Your task to perform on an android device: toggle airplane mode Image 0: 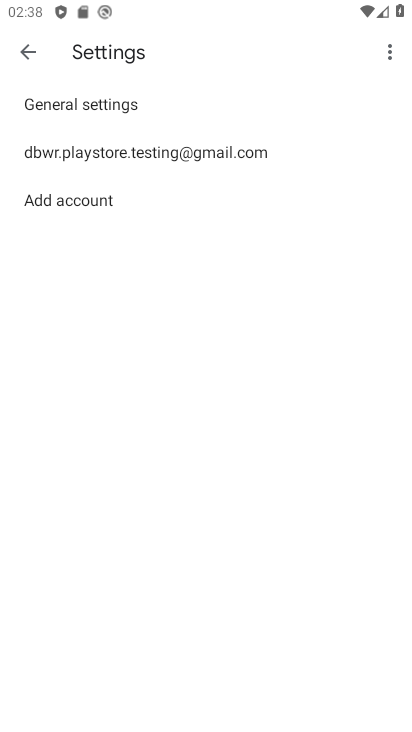
Step 0: press home button
Your task to perform on an android device: toggle airplane mode Image 1: 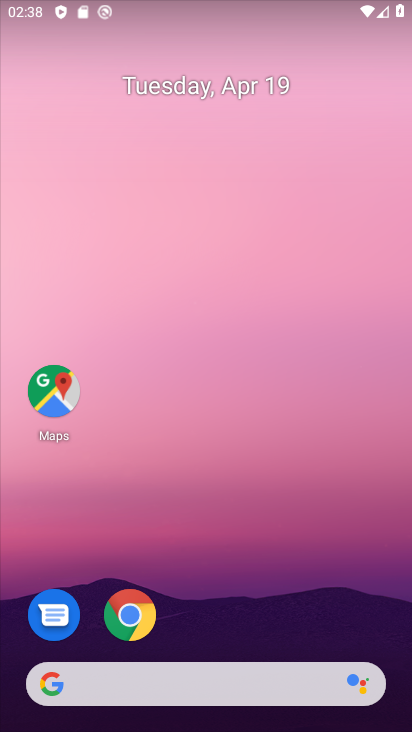
Step 1: drag from (235, 609) to (272, 230)
Your task to perform on an android device: toggle airplane mode Image 2: 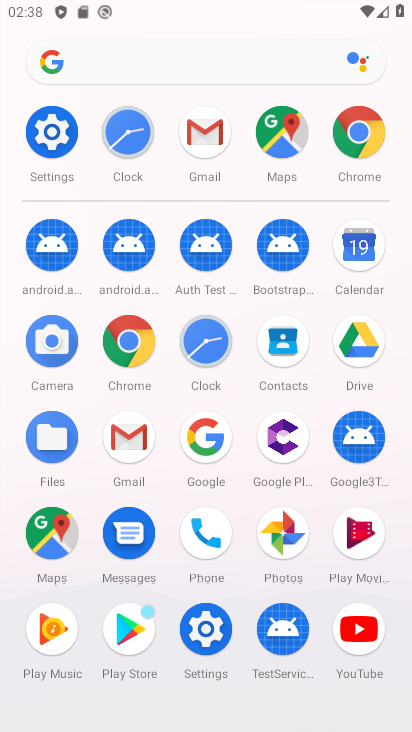
Step 2: click (53, 124)
Your task to perform on an android device: toggle airplane mode Image 3: 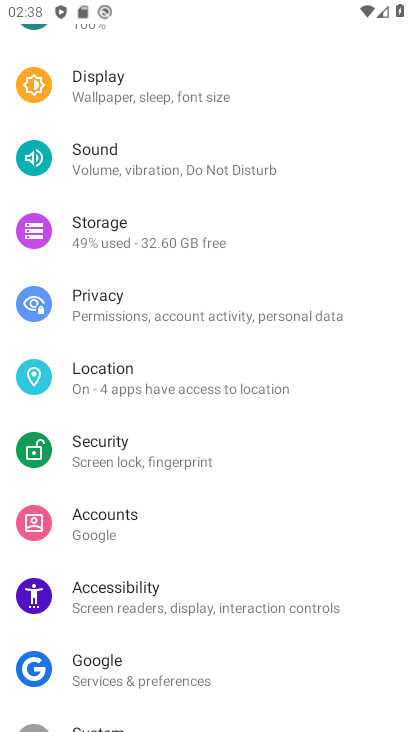
Step 3: drag from (189, 94) to (154, 592)
Your task to perform on an android device: toggle airplane mode Image 4: 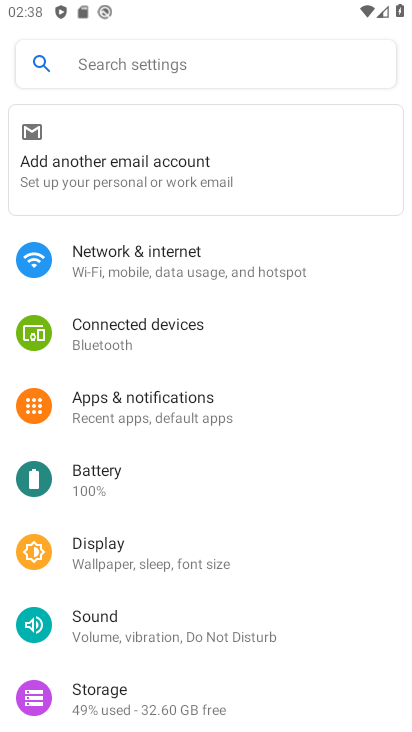
Step 4: click (163, 249)
Your task to perform on an android device: toggle airplane mode Image 5: 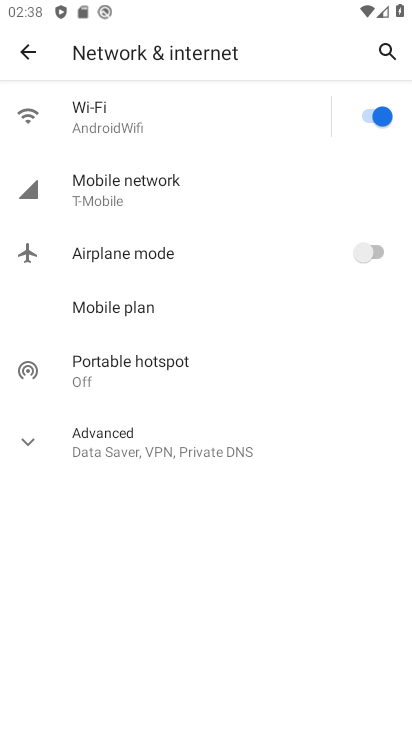
Step 5: click (367, 244)
Your task to perform on an android device: toggle airplane mode Image 6: 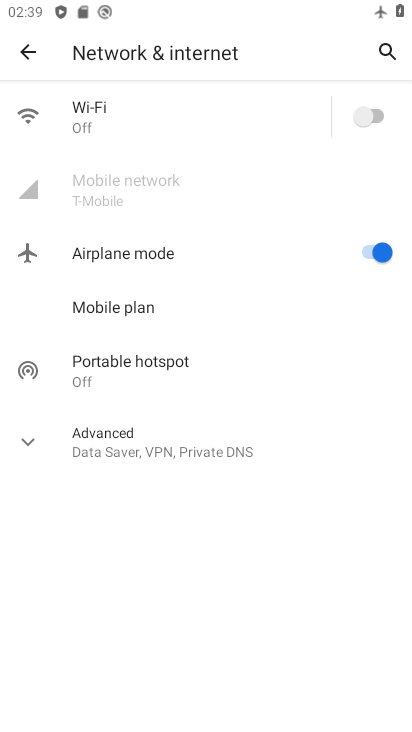
Step 6: task complete